Your task to perform on an android device: turn off picture-in-picture Image 0: 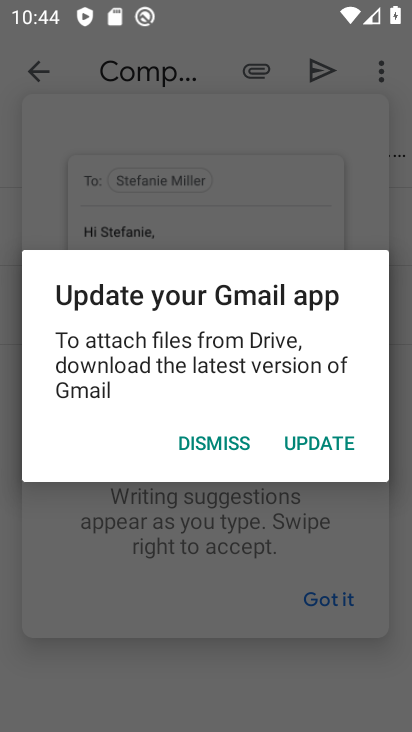
Step 0: press home button
Your task to perform on an android device: turn off picture-in-picture Image 1: 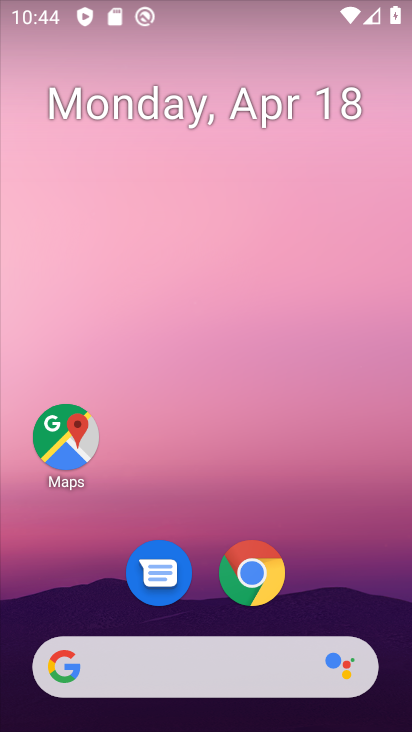
Step 1: drag from (345, 601) to (283, 44)
Your task to perform on an android device: turn off picture-in-picture Image 2: 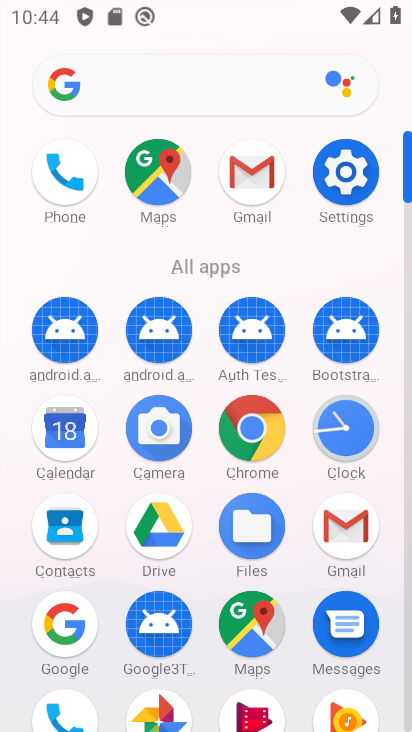
Step 2: click (343, 170)
Your task to perform on an android device: turn off picture-in-picture Image 3: 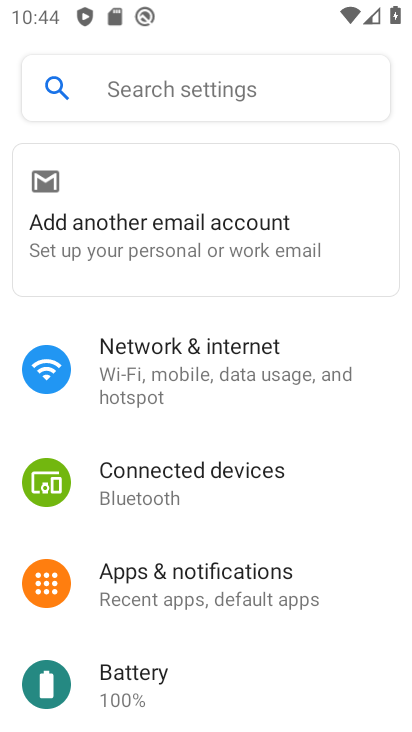
Step 3: drag from (164, 696) to (183, 232)
Your task to perform on an android device: turn off picture-in-picture Image 4: 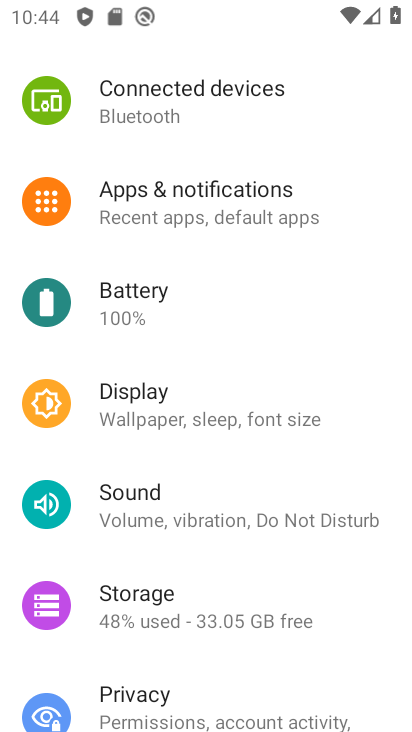
Step 4: click (175, 209)
Your task to perform on an android device: turn off picture-in-picture Image 5: 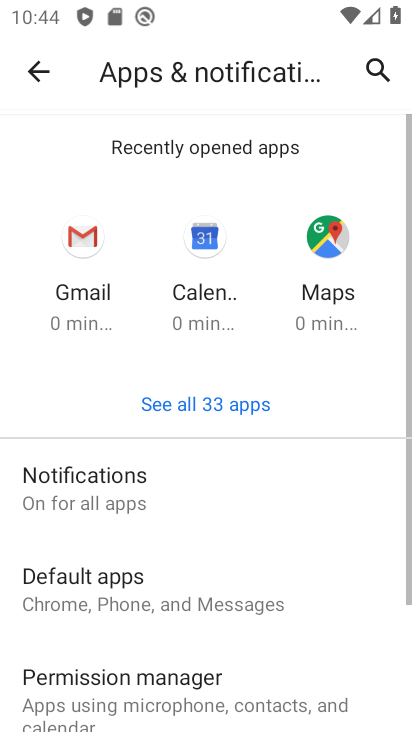
Step 5: drag from (166, 660) to (210, 140)
Your task to perform on an android device: turn off picture-in-picture Image 6: 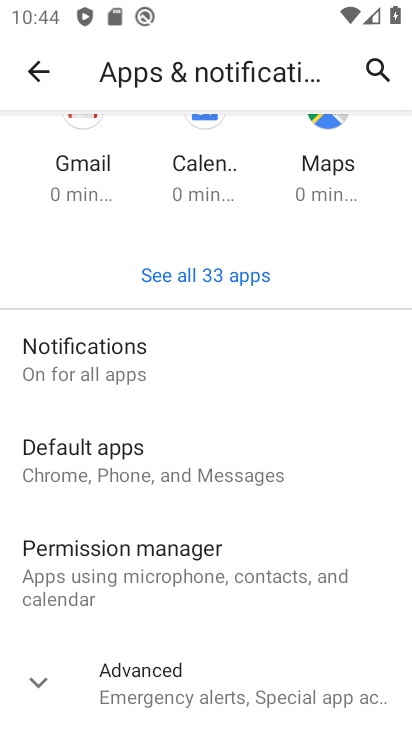
Step 6: click (179, 695)
Your task to perform on an android device: turn off picture-in-picture Image 7: 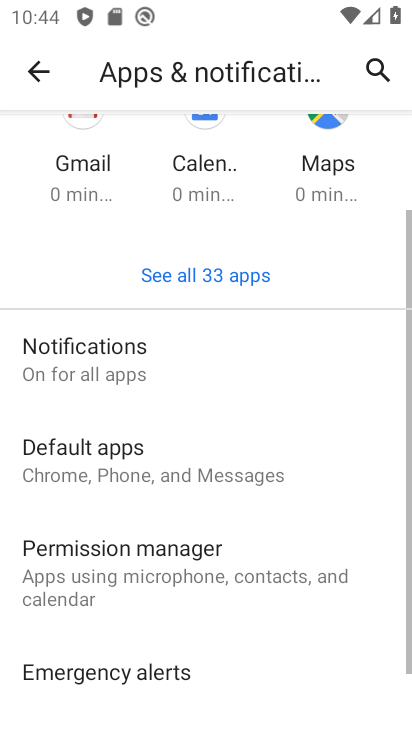
Step 7: drag from (184, 587) to (177, 152)
Your task to perform on an android device: turn off picture-in-picture Image 8: 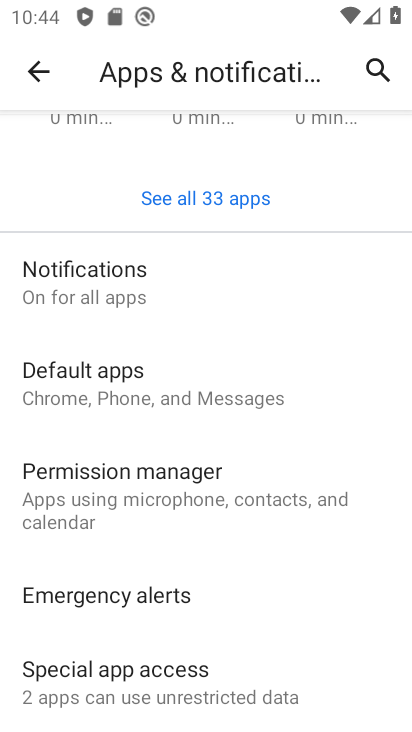
Step 8: click (149, 696)
Your task to perform on an android device: turn off picture-in-picture Image 9: 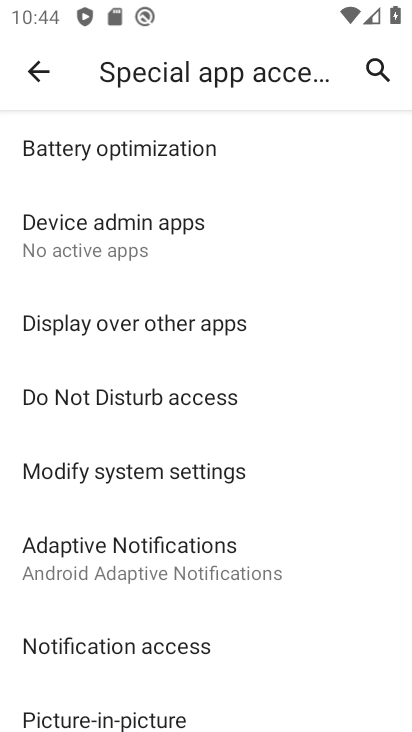
Step 9: click (134, 723)
Your task to perform on an android device: turn off picture-in-picture Image 10: 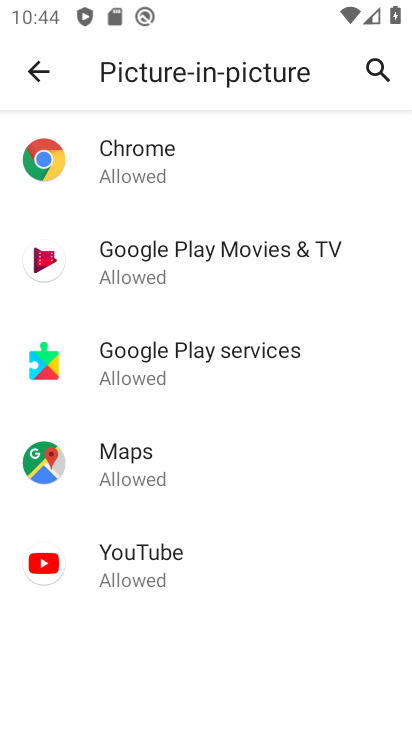
Step 10: click (145, 173)
Your task to perform on an android device: turn off picture-in-picture Image 11: 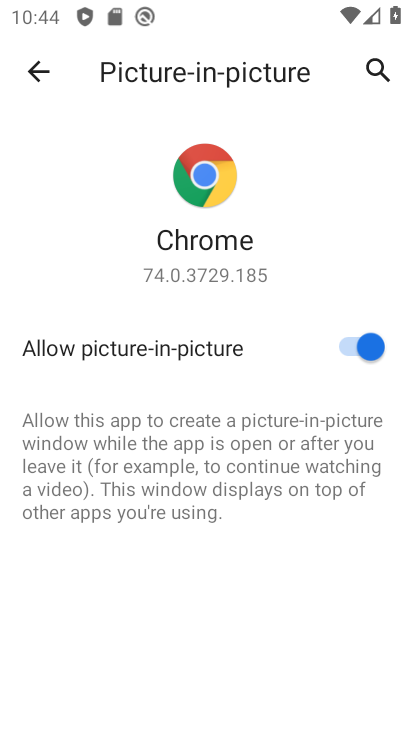
Step 11: click (367, 354)
Your task to perform on an android device: turn off picture-in-picture Image 12: 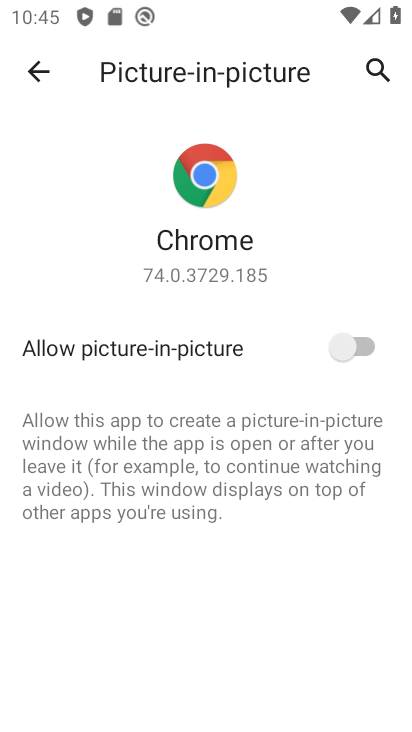
Step 12: task complete